Your task to perform on an android device: Search for "macbook pro 15 inch" on ebay, select the first entry, and add it to the cart. Image 0: 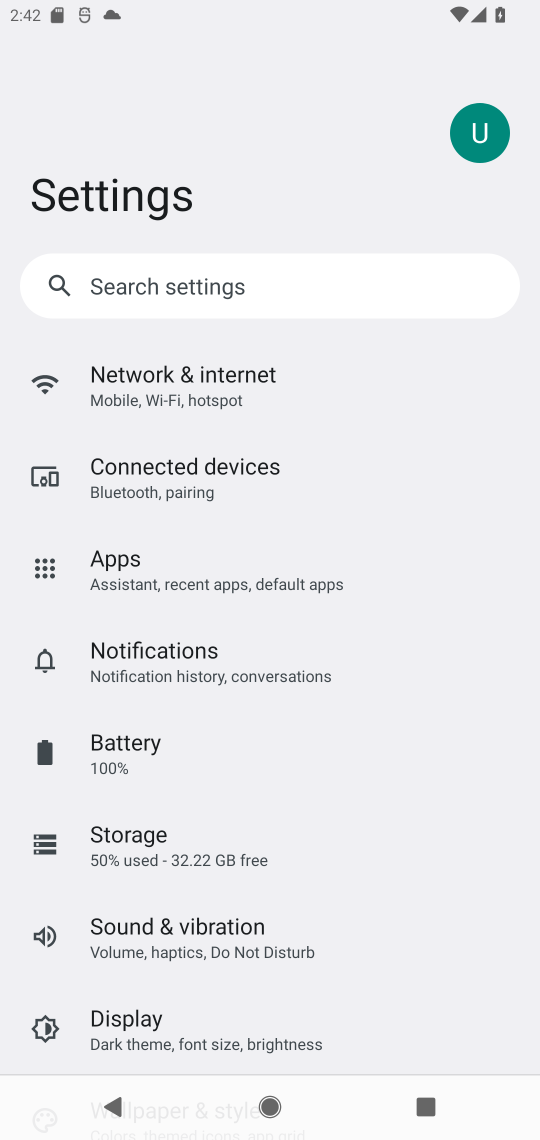
Step 0: press home button
Your task to perform on an android device: Search for "macbook pro 15 inch" on ebay, select the first entry, and add it to the cart. Image 1: 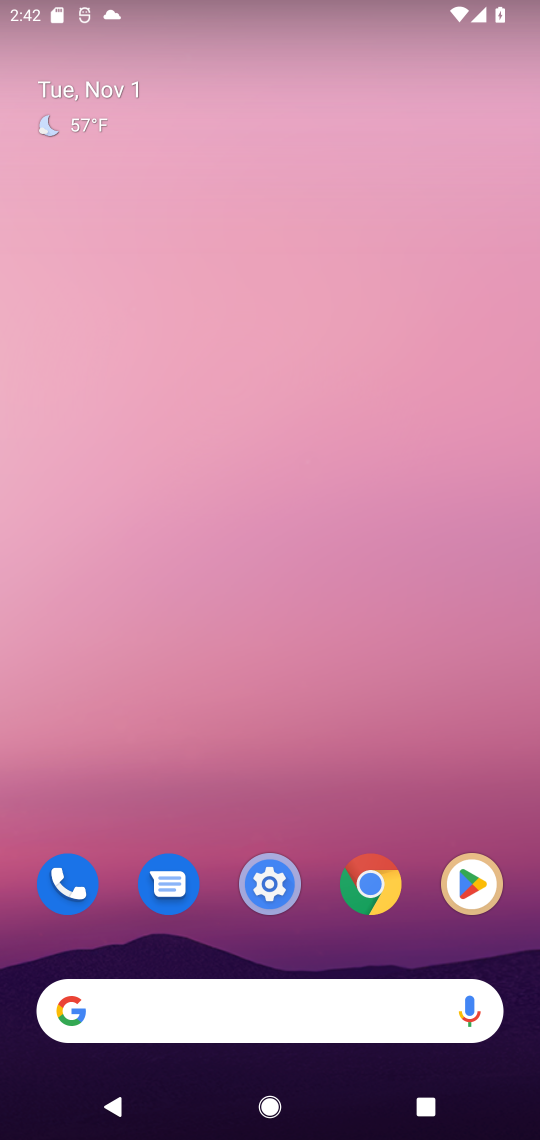
Step 1: click (106, 1012)
Your task to perform on an android device: Search for "macbook pro 15 inch" on ebay, select the first entry, and add it to the cart. Image 2: 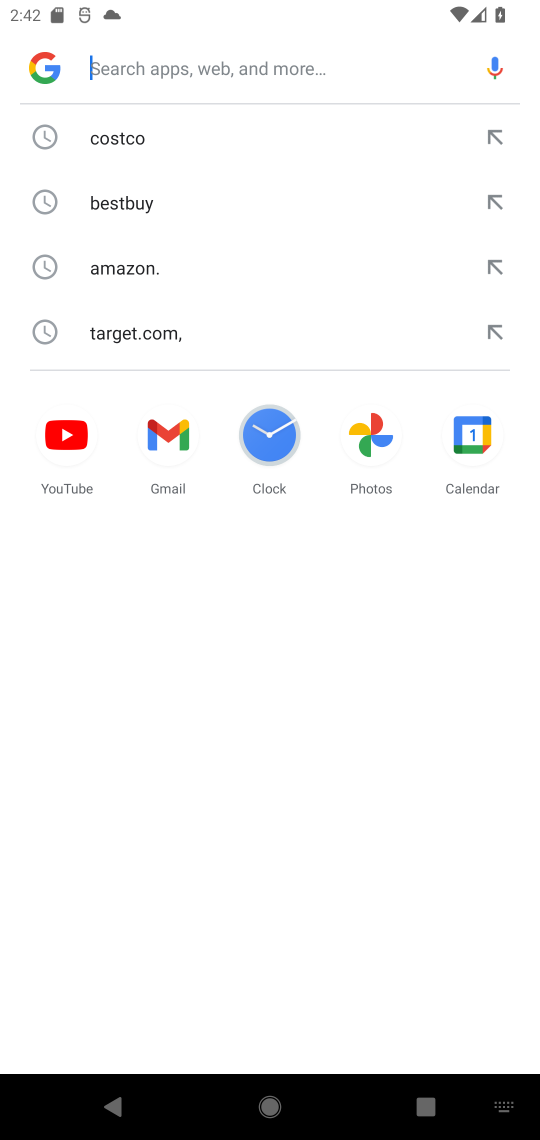
Step 2: type "ebay"
Your task to perform on an android device: Search for "macbook pro 15 inch" on ebay, select the first entry, and add it to the cart. Image 3: 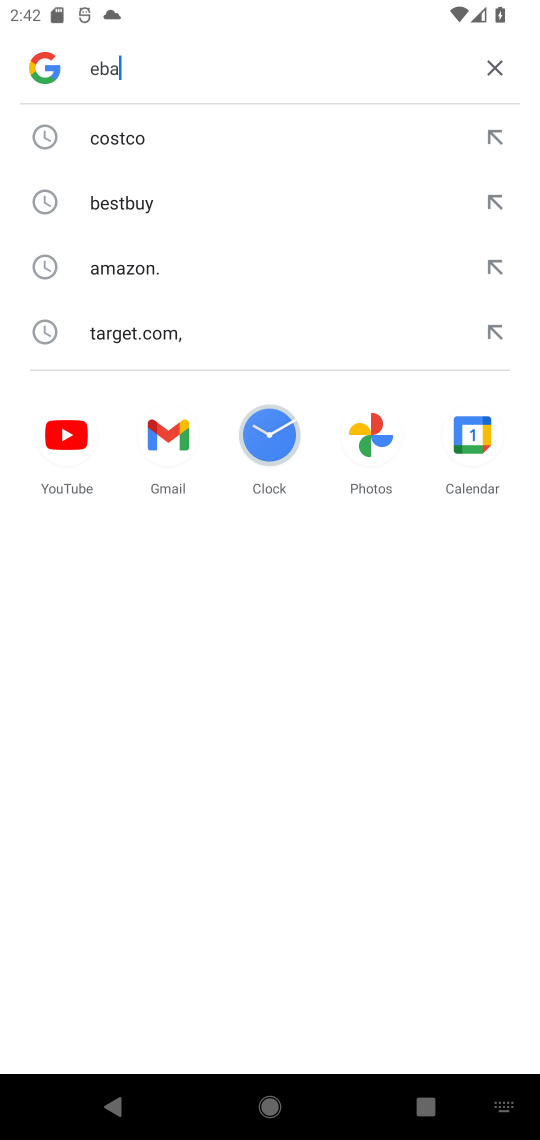
Step 3: press enter
Your task to perform on an android device: Search for "macbook pro 15 inch" on ebay, select the first entry, and add it to the cart. Image 4: 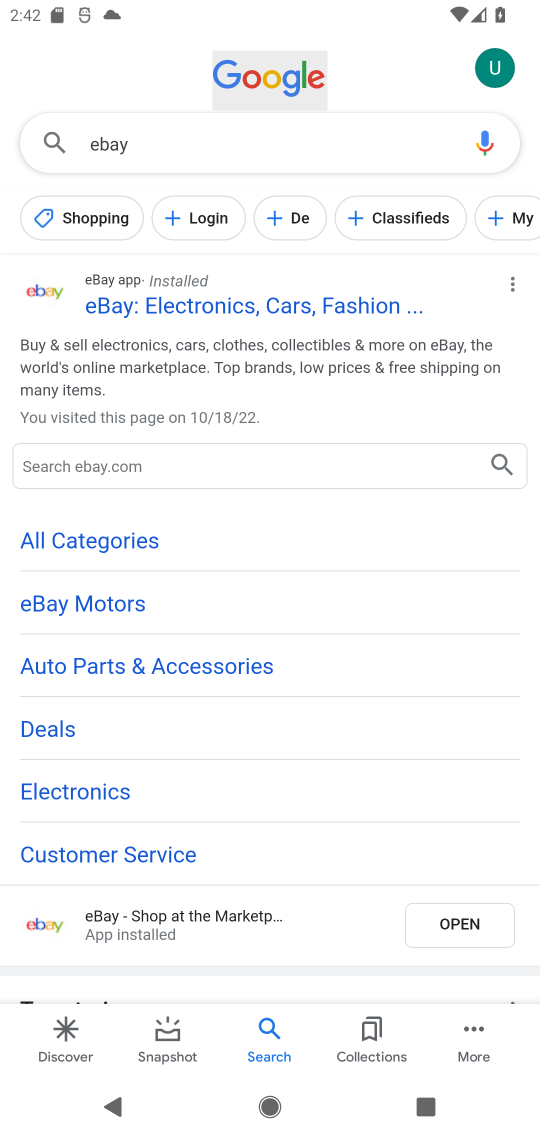
Step 4: click (178, 310)
Your task to perform on an android device: Search for "macbook pro 15 inch" on ebay, select the first entry, and add it to the cart. Image 5: 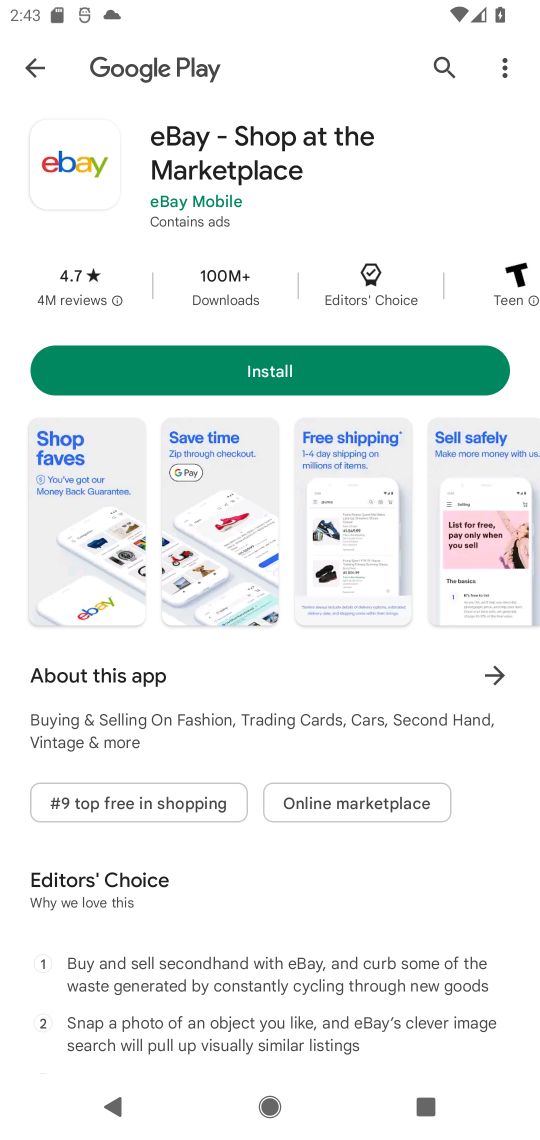
Step 5: press back button
Your task to perform on an android device: Search for "macbook pro 15 inch" on ebay, select the first entry, and add it to the cart. Image 6: 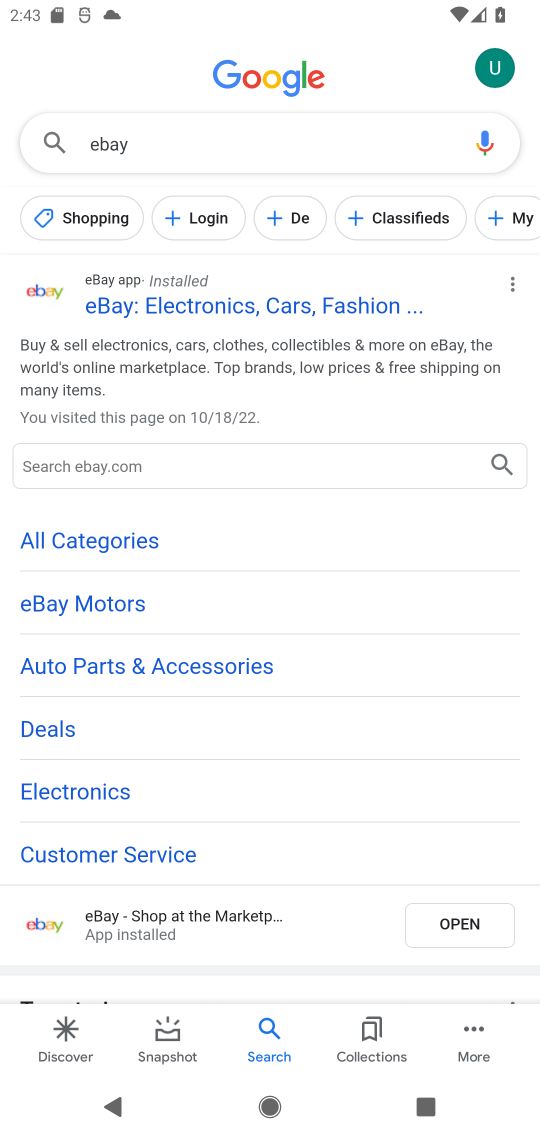
Step 6: drag from (309, 774) to (331, 421)
Your task to perform on an android device: Search for "macbook pro 15 inch" on ebay, select the first entry, and add it to the cart. Image 7: 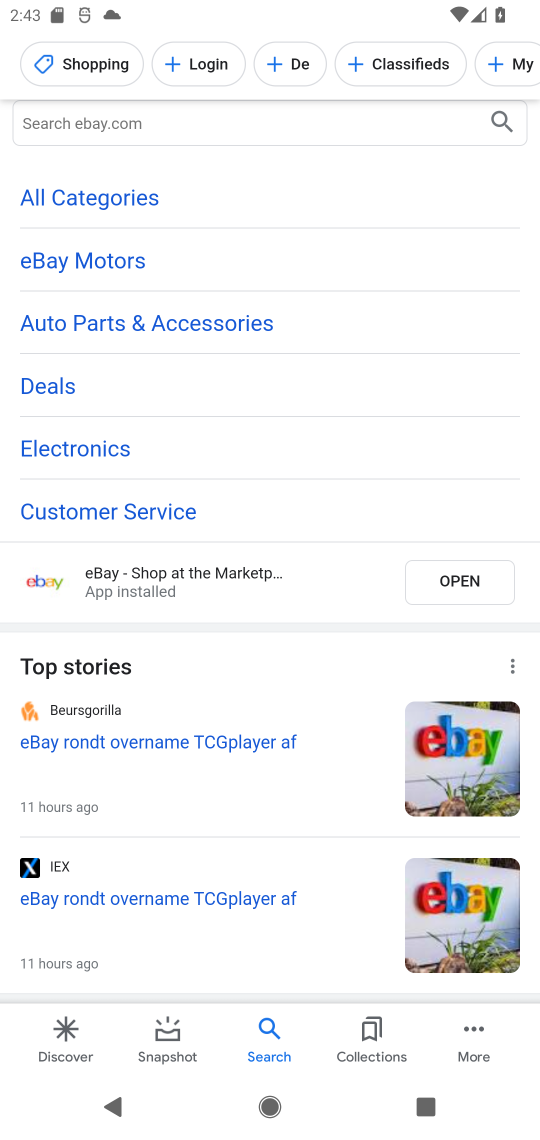
Step 7: drag from (264, 769) to (308, 244)
Your task to perform on an android device: Search for "macbook pro 15 inch" on ebay, select the first entry, and add it to the cart. Image 8: 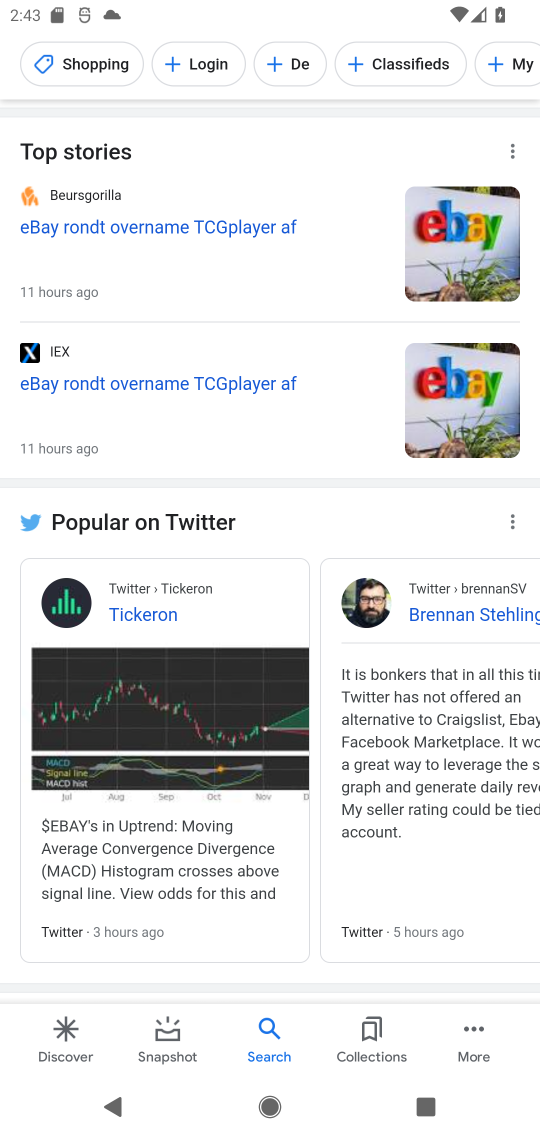
Step 8: drag from (271, 757) to (286, 267)
Your task to perform on an android device: Search for "macbook pro 15 inch" on ebay, select the first entry, and add it to the cart. Image 9: 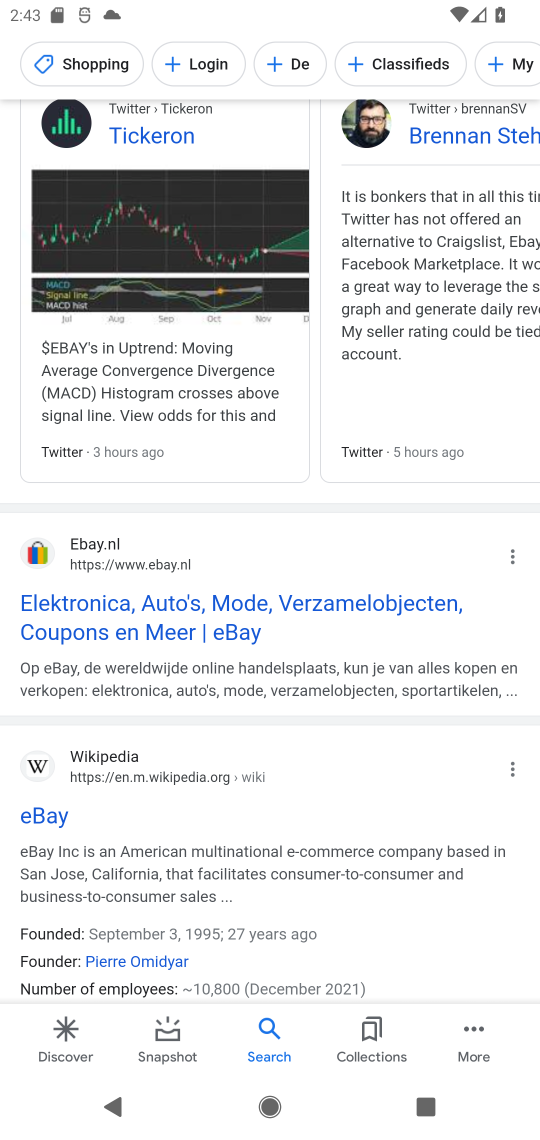
Step 9: click (260, 617)
Your task to perform on an android device: Search for "macbook pro 15 inch" on ebay, select the first entry, and add it to the cart. Image 10: 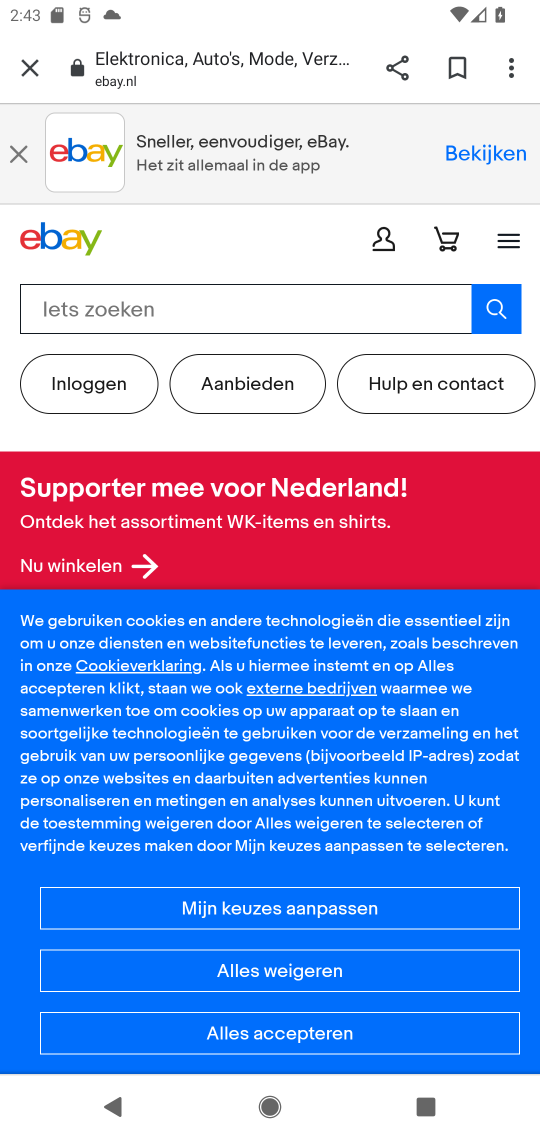
Step 10: click (77, 317)
Your task to perform on an android device: Search for "macbook pro 15 inch" on ebay, select the first entry, and add it to the cart. Image 11: 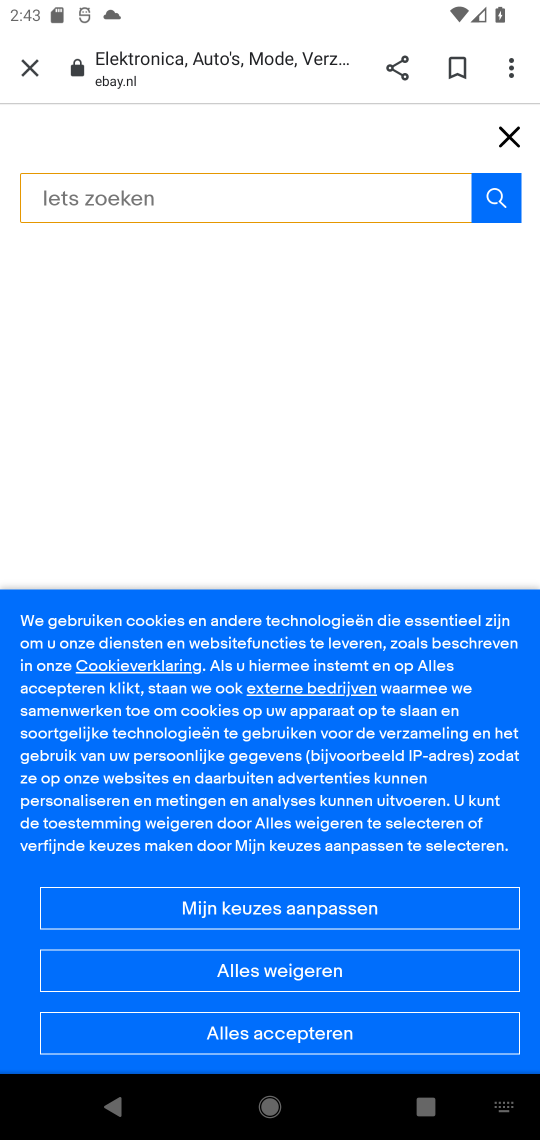
Step 11: type "macbook pro 15 inch"
Your task to perform on an android device: Search for "macbook pro 15 inch" on ebay, select the first entry, and add it to the cart. Image 12: 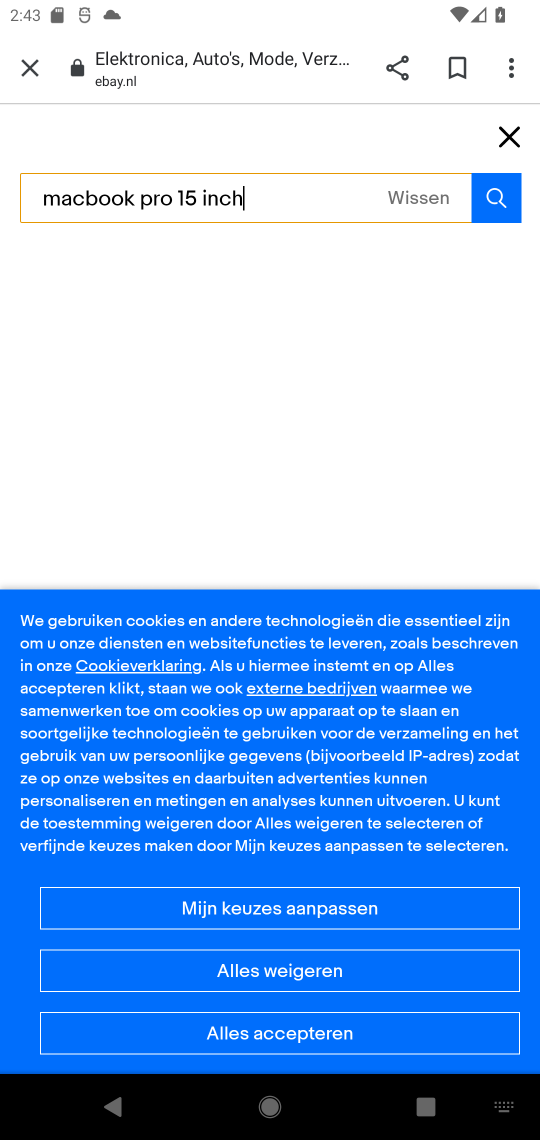
Step 12: press enter
Your task to perform on an android device: Search for "macbook pro 15 inch" on ebay, select the first entry, and add it to the cart. Image 13: 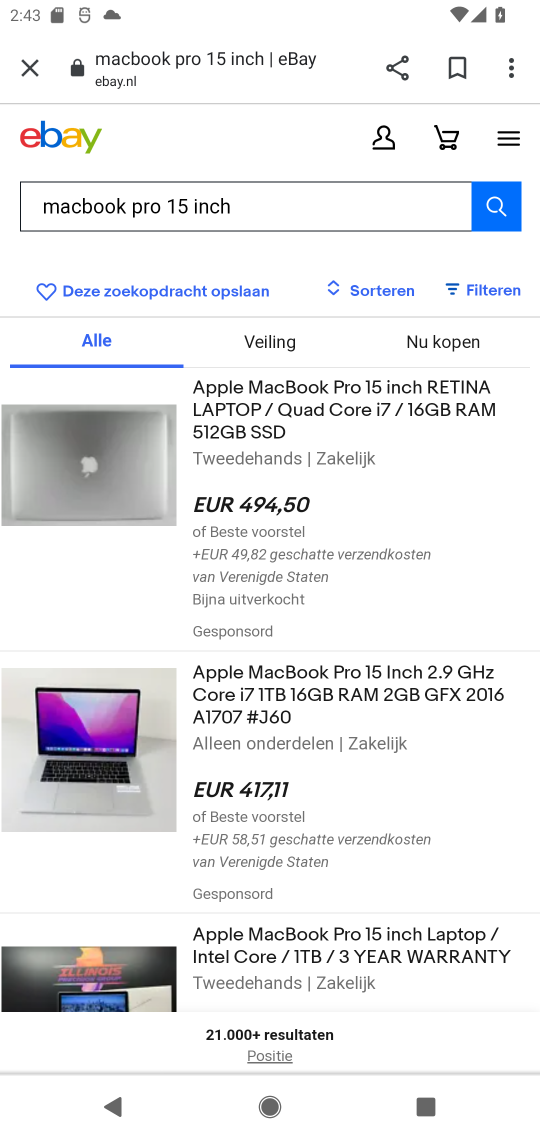
Step 13: click (277, 396)
Your task to perform on an android device: Search for "macbook pro 15 inch" on ebay, select the first entry, and add it to the cart. Image 14: 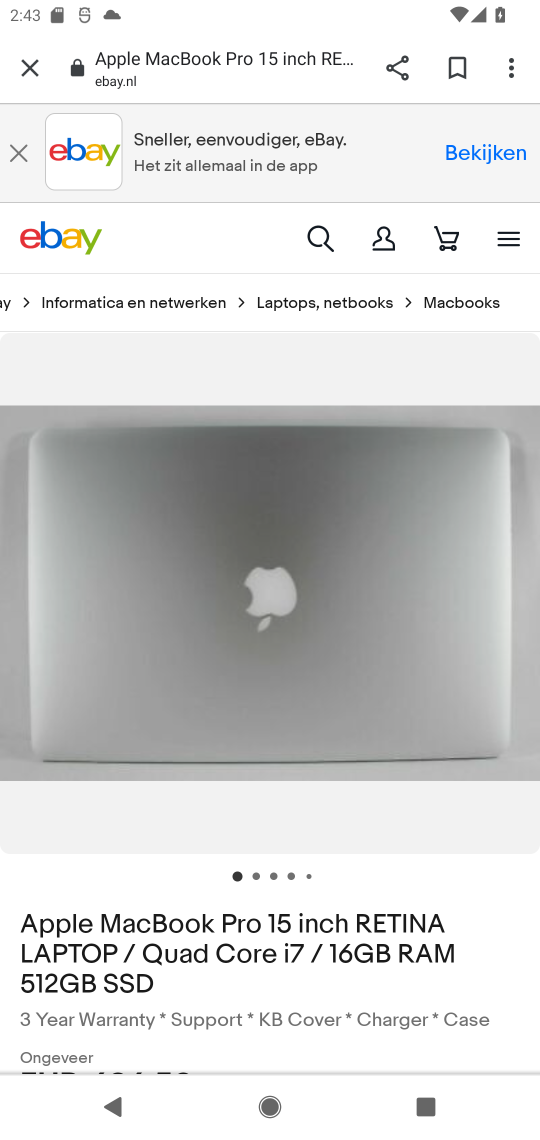
Step 14: drag from (314, 878) to (317, 366)
Your task to perform on an android device: Search for "macbook pro 15 inch" on ebay, select the first entry, and add it to the cart. Image 15: 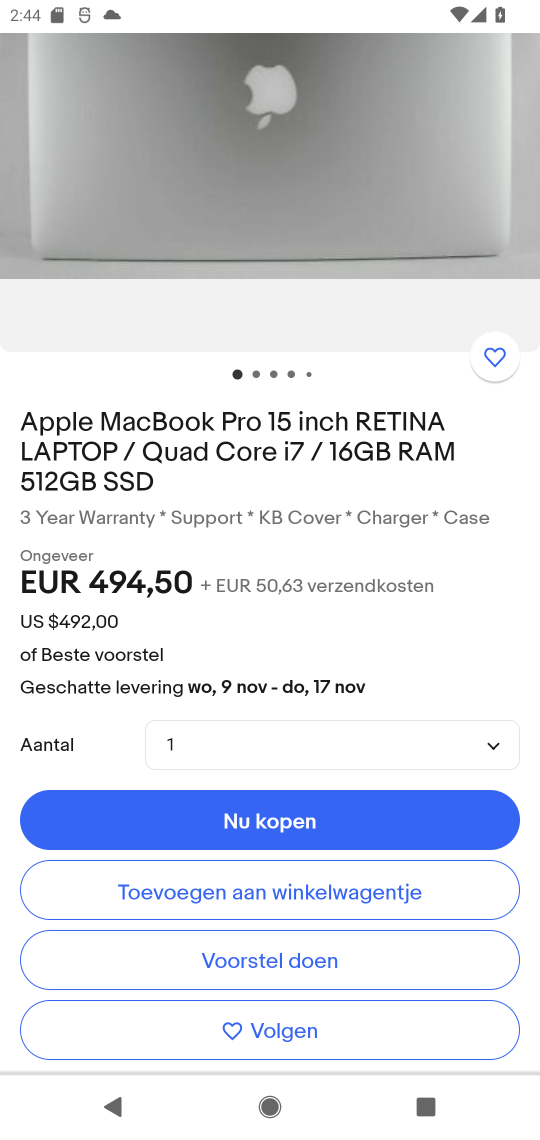
Step 15: drag from (320, 738) to (323, 346)
Your task to perform on an android device: Search for "macbook pro 15 inch" on ebay, select the first entry, and add it to the cart. Image 16: 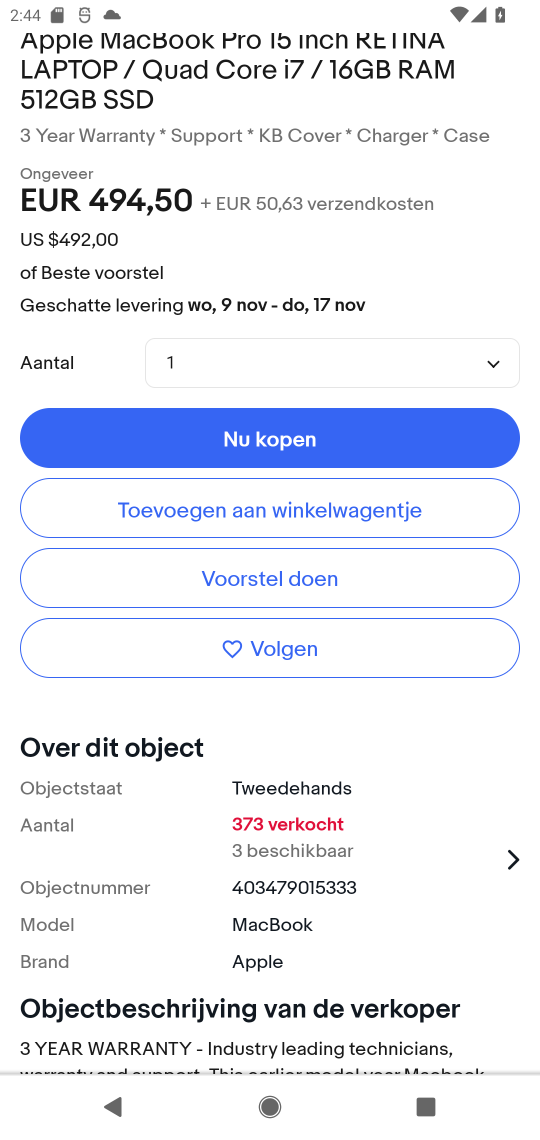
Step 16: click (317, 444)
Your task to perform on an android device: Search for "macbook pro 15 inch" on ebay, select the first entry, and add it to the cart. Image 17: 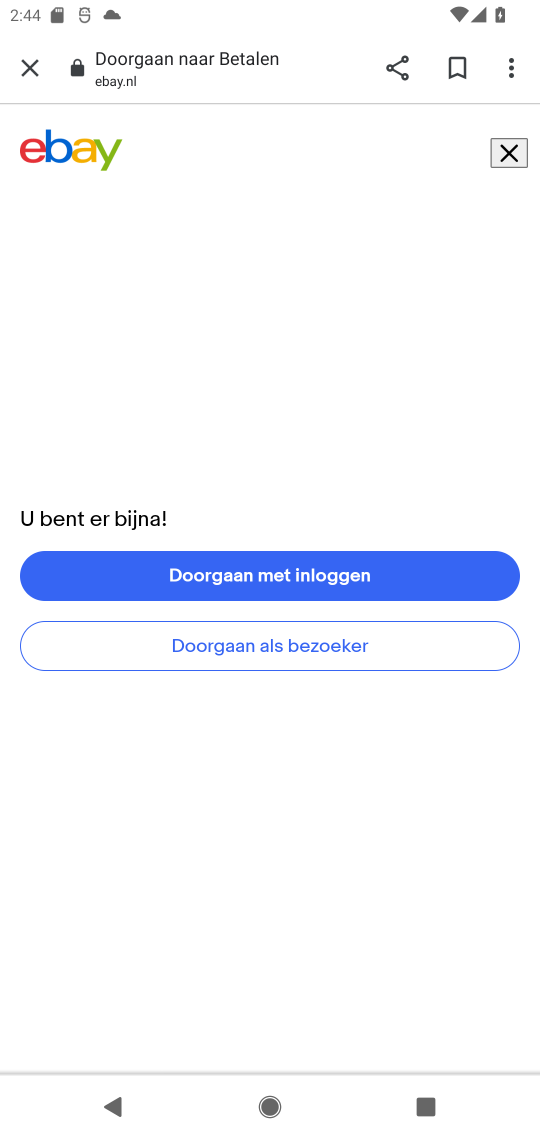
Step 17: task complete